Your task to perform on an android device: Check the news Image 0: 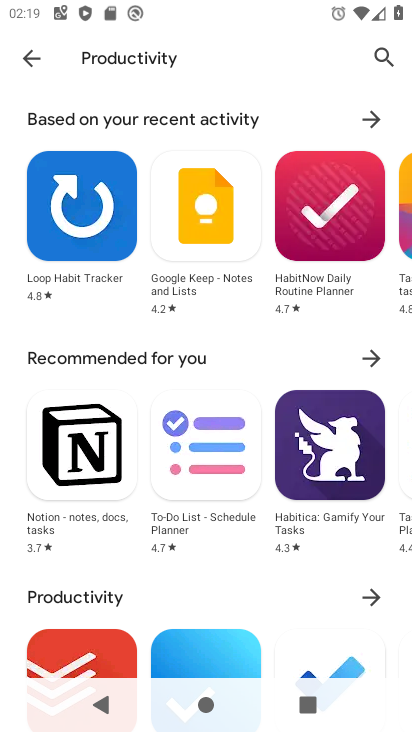
Step 0: press home button
Your task to perform on an android device: Check the news Image 1: 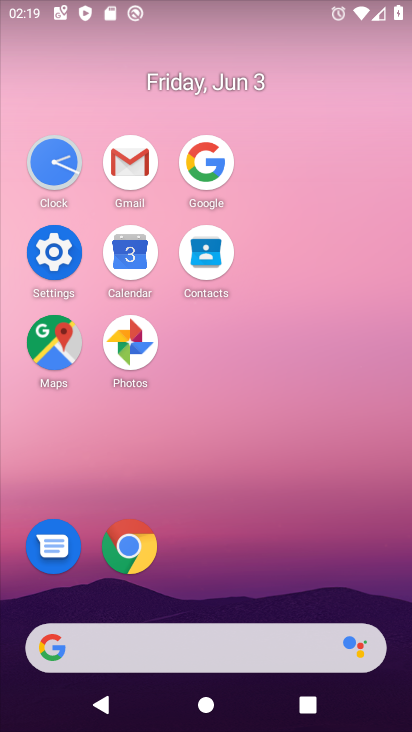
Step 1: click (214, 172)
Your task to perform on an android device: Check the news Image 2: 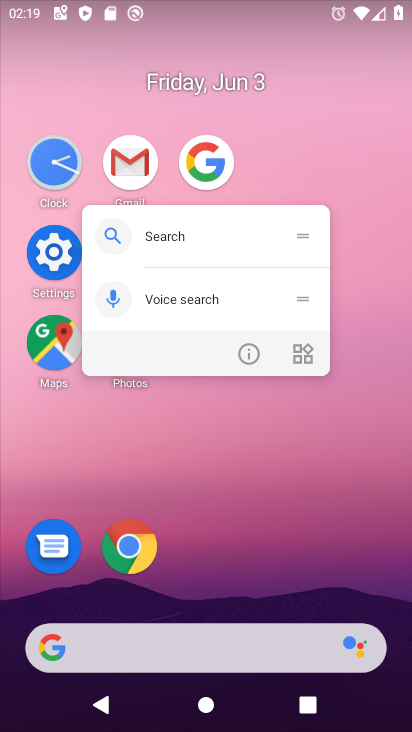
Step 2: click (211, 176)
Your task to perform on an android device: Check the news Image 3: 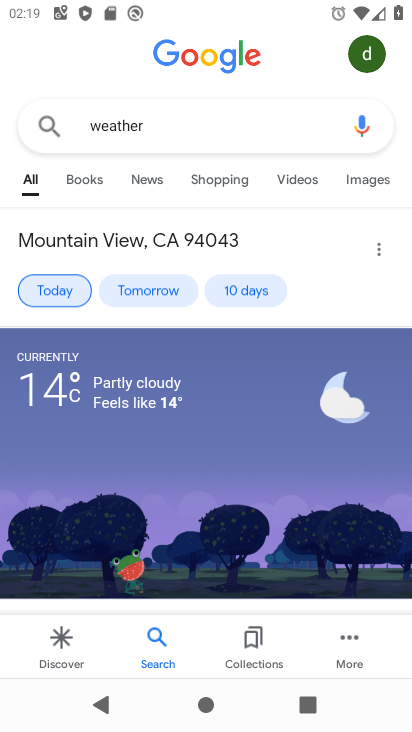
Step 3: click (197, 123)
Your task to perform on an android device: Check the news Image 4: 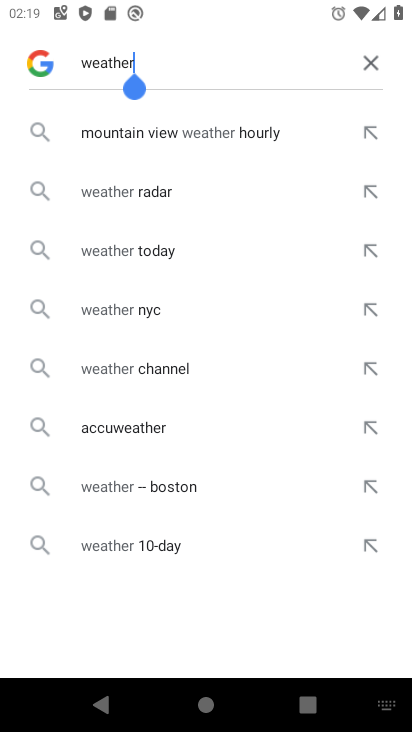
Step 4: click (375, 54)
Your task to perform on an android device: Check the news Image 5: 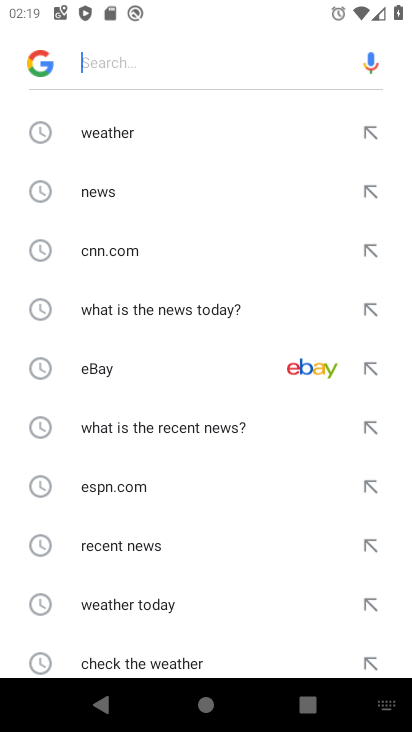
Step 5: click (127, 186)
Your task to perform on an android device: Check the news Image 6: 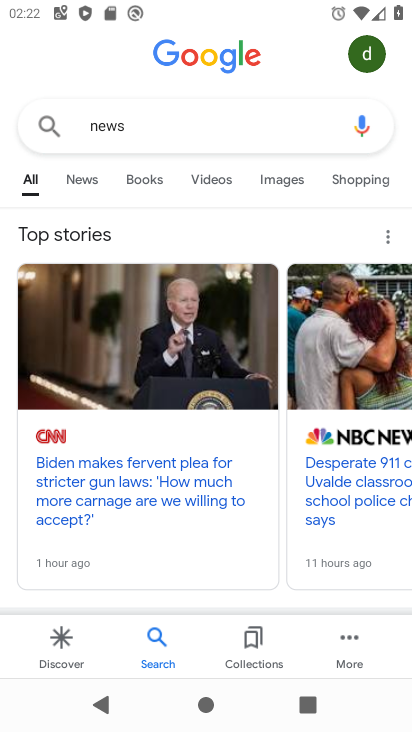
Step 6: task complete